Your task to perform on an android device: What's the weather going to be tomorrow? Image 0: 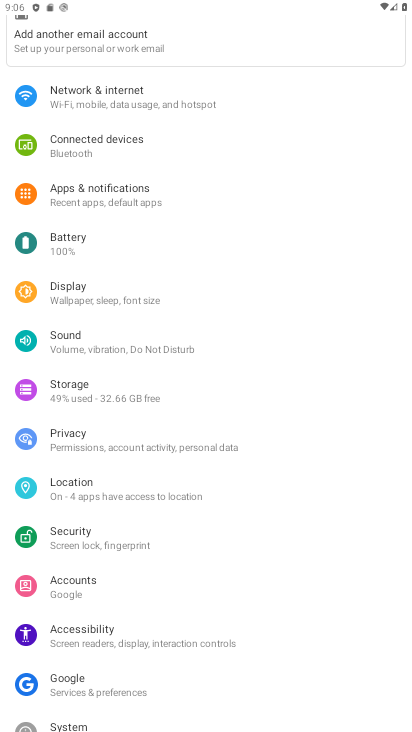
Step 0: press home button
Your task to perform on an android device: What's the weather going to be tomorrow? Image 1: 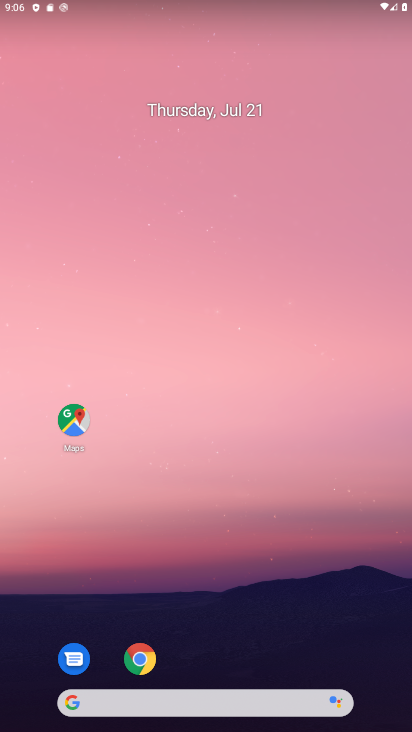
Step 1: click (246, 696)
Your task to perform on an android device: What's the weather going to be tomorrow? Image 2: 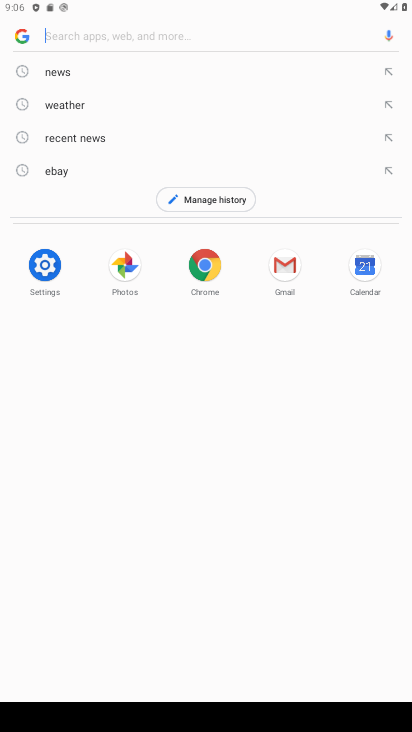
Step 2: click (53, 102)
Your task to perform on an android device: What's the weather going to be tomorrow? Image 3: 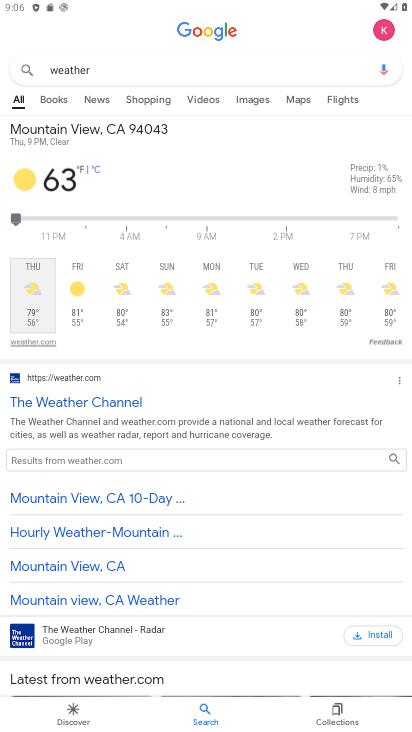
Step 3: click (61, 312)
Your task to perform on an android device: What's the weather going to be tomorrow? Image 4: 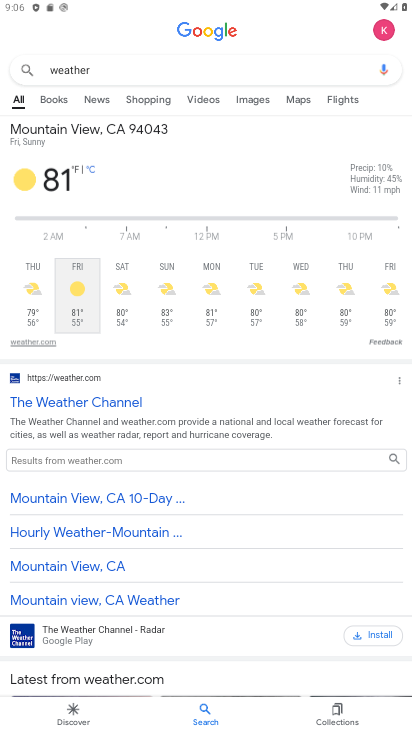
Step 4: task complete